Your task to perform on an android device: toggle wifi Image 0: 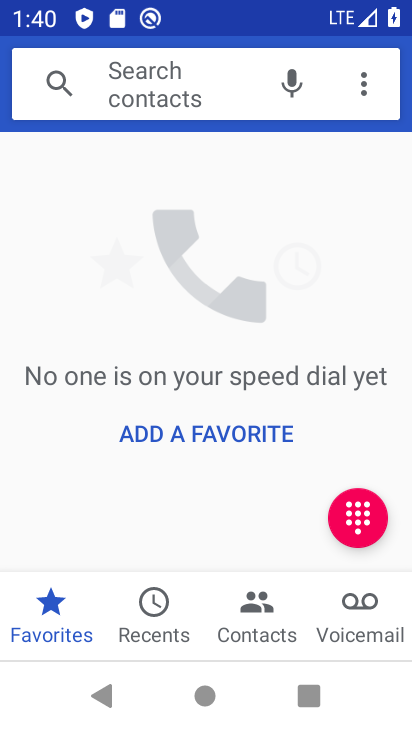
Step 0: press home button
Your task to perform on an android device: toggle wifi Image 1: 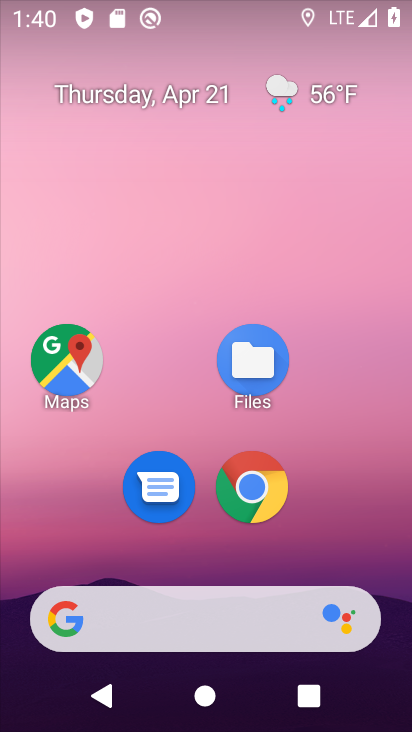
Step 1: drag from (353, 522) to (358, 136)
Your task to perform on an android device: toggle wifi Image 2: 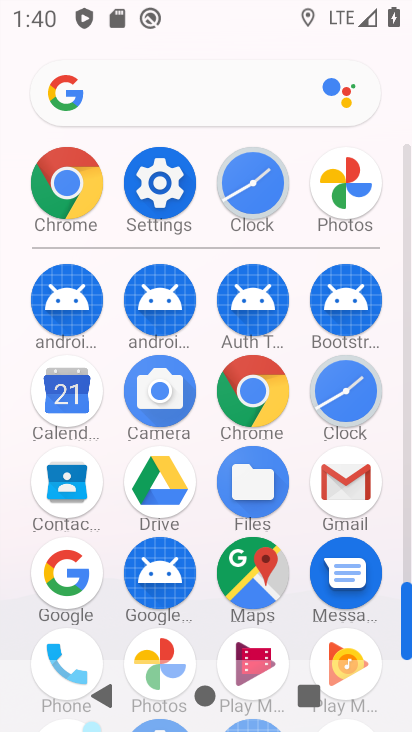
Step 2: click (141, 174)
Your task to perform on an android device: toggle wifi Image 3: 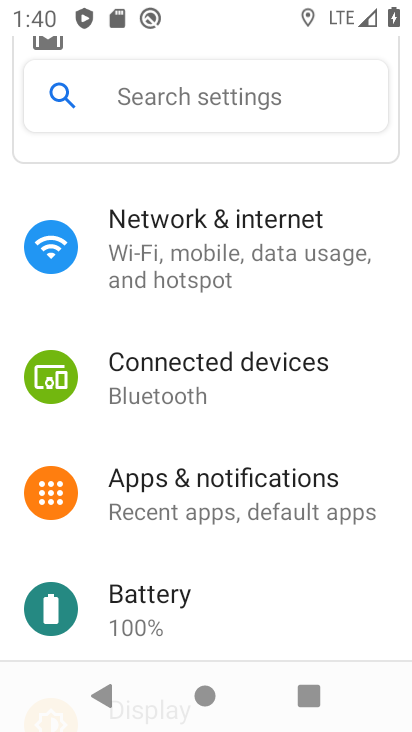
Step 3: click (146, 272)
Your task to perform on an android device: toggle wifi Image 4: 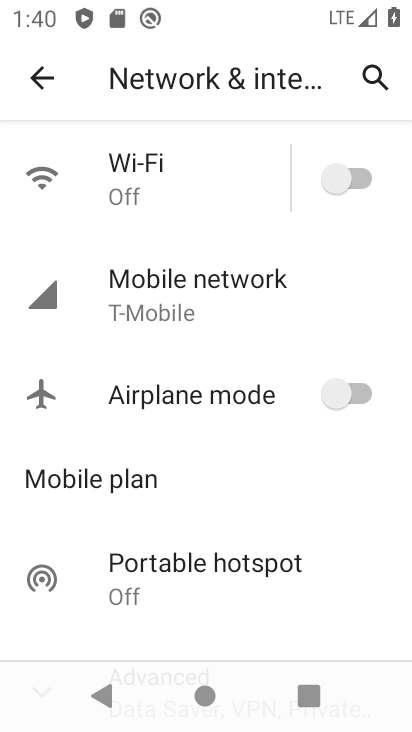
Step 4: click (358, 173)
Your task to perform on an android device: toggle wifi Image 5: 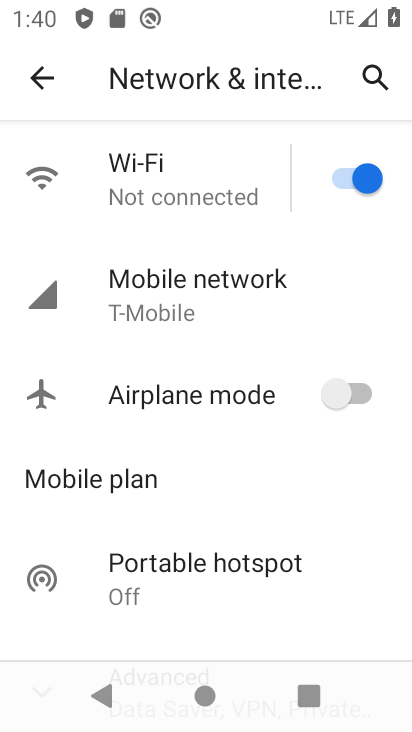
Step 5: task complete